Your task to perform on an android device: turn notification dots on Image 0: 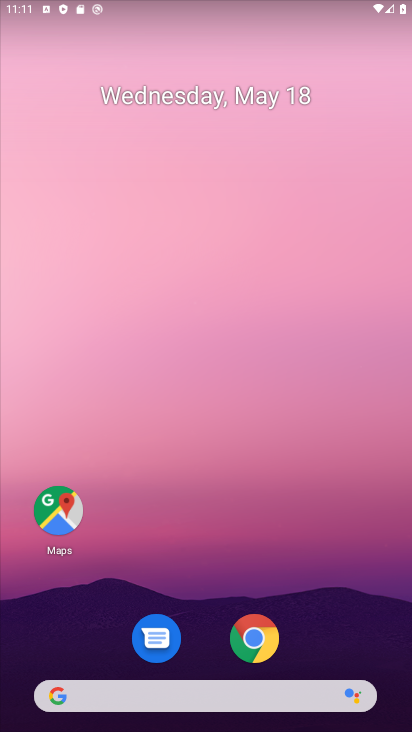
Step 0: drag from (350, 599) to (296, 57)
Your task to perform on an android device: turn notification dots on Image 1: 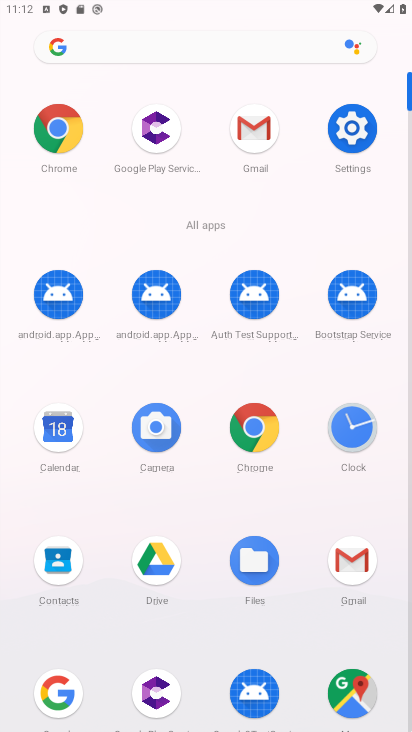
Step 1: click (373, 133)
Your task to perform on an android device: turn notification dots on Image 2: 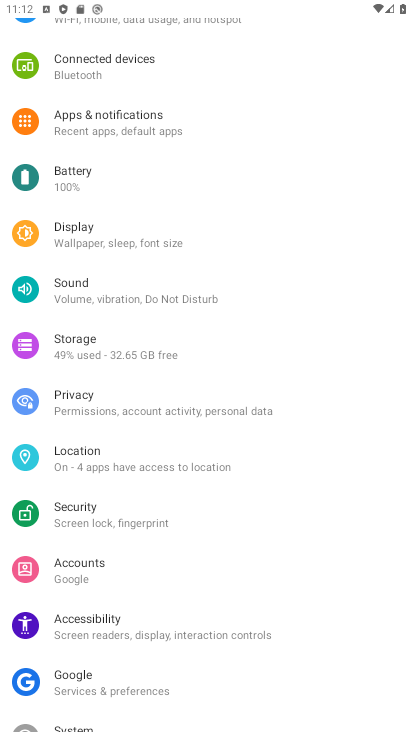
Step 2: click (186, 110)
Your task to perform on an android device: turn notification dots on Image 3: 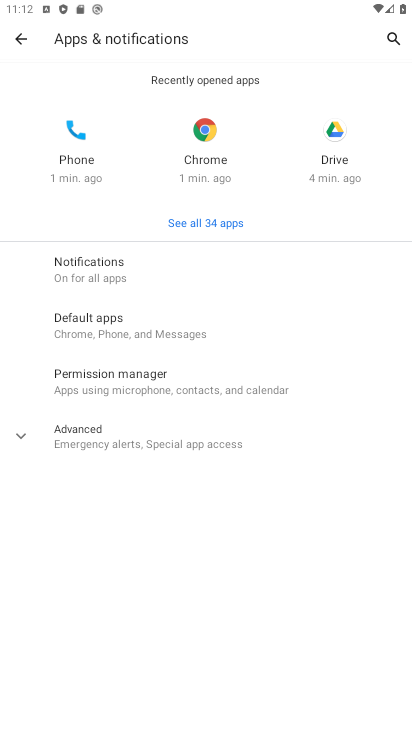
Step 3: click (176, 285)
Your task to perform on an android device: turn notification dots on Image 4: 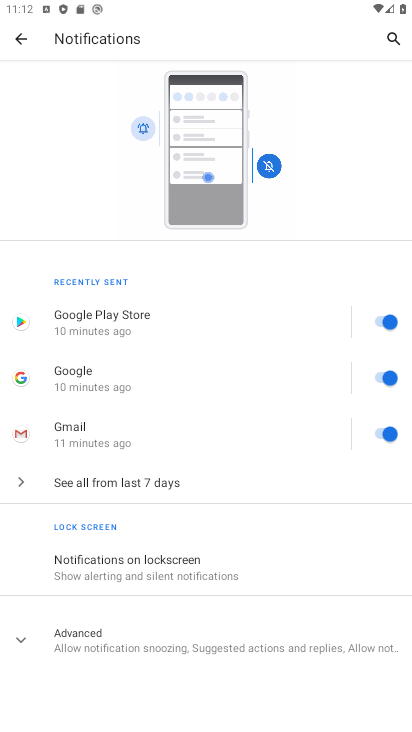
Step 4: click (109, 637)
Your task to perform on an android device: turn notification dots on Image 5: 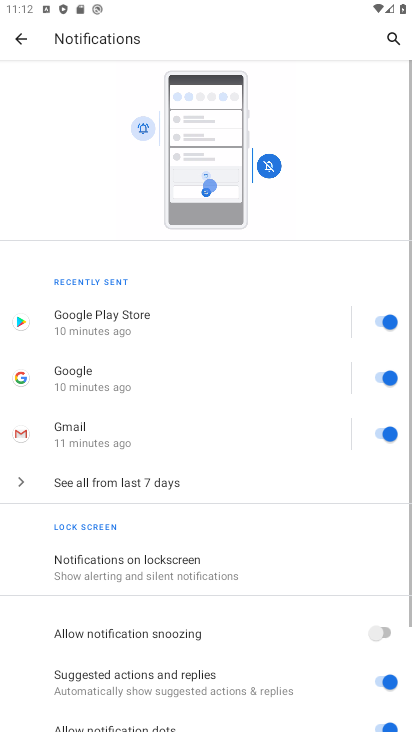
Step 5: task complete